Your task to perform on an android device: Open Chrome and go to the settings page Image 0: 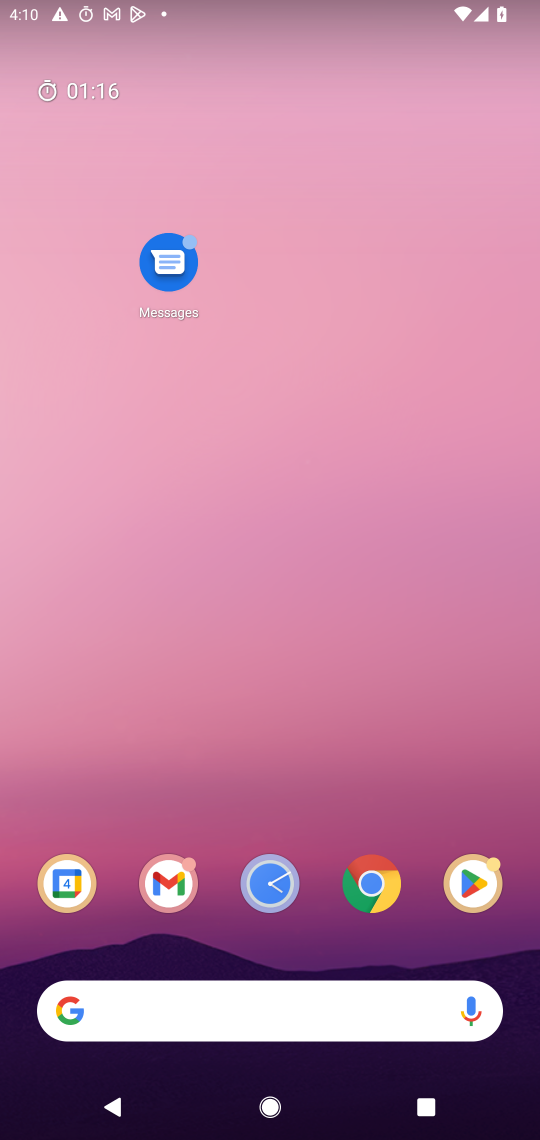
Step 0: drag from (317, 957) to (227, 97)
Your task to perform on an android device: Open Chrome and go to the settings page Image 1: 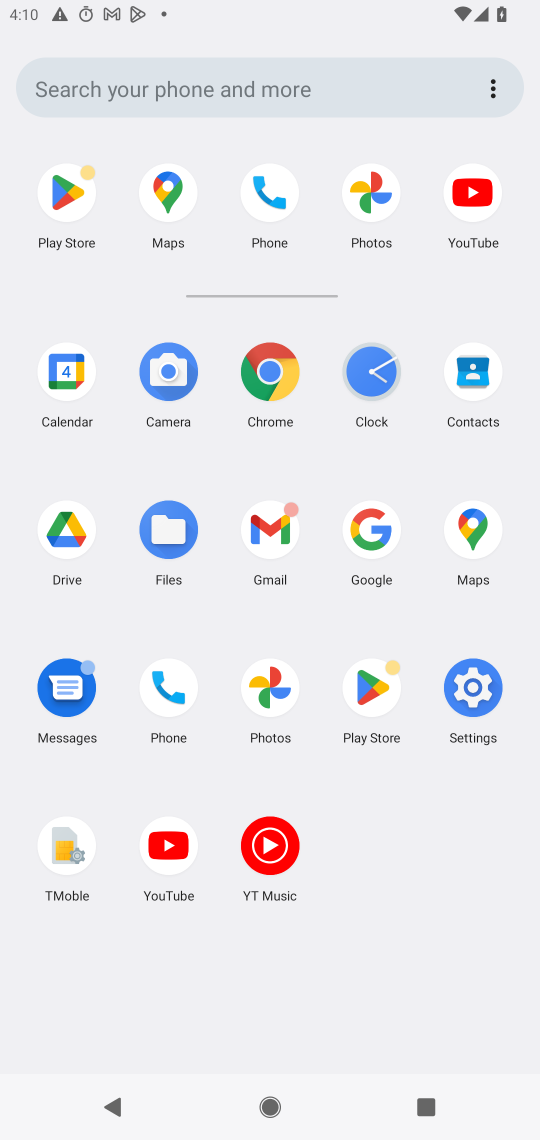
Step 1: click (273, 375)
Your task to perform on an android device: Open Chrome and go to the settings page Image 2: 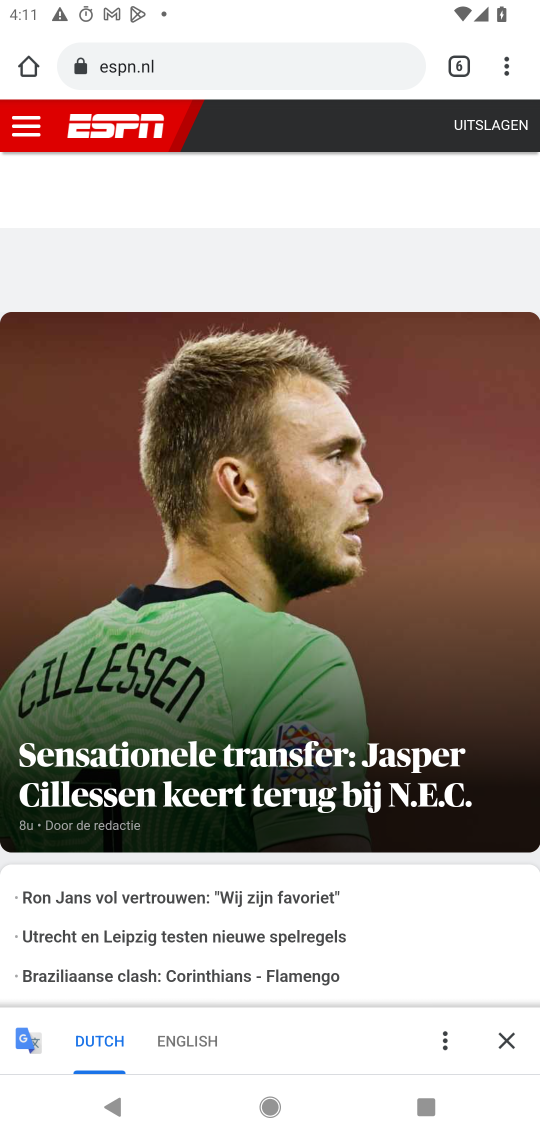
Step 2: click (508, 75)
Your task to perform on an android device: Open Chrome and go to the settings page Image 3: 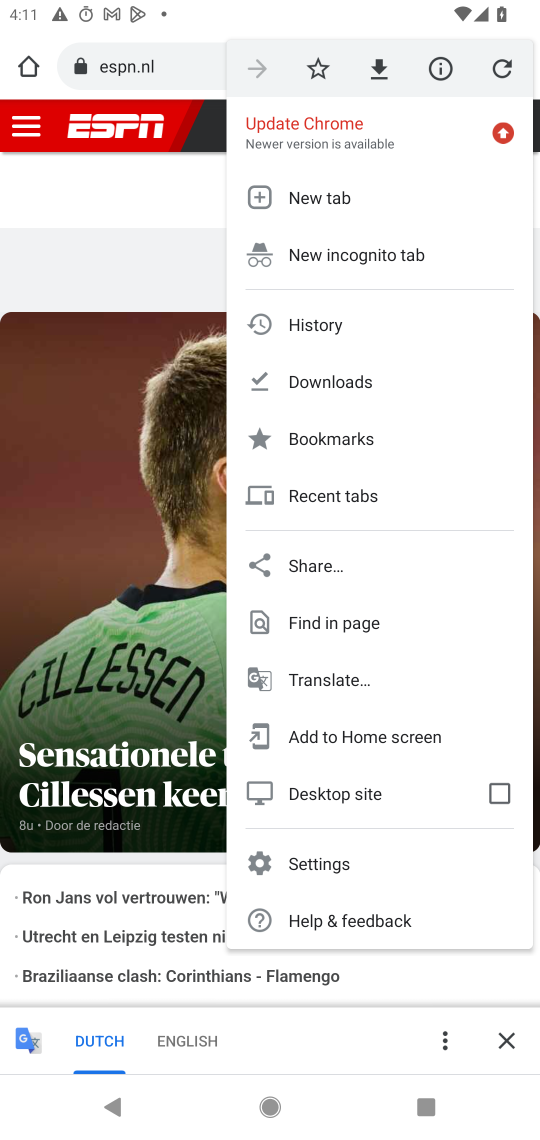
Step 3: click (315, 859)
Your task to perform on an android device: Open Chrome and go to the settings page Image 4: 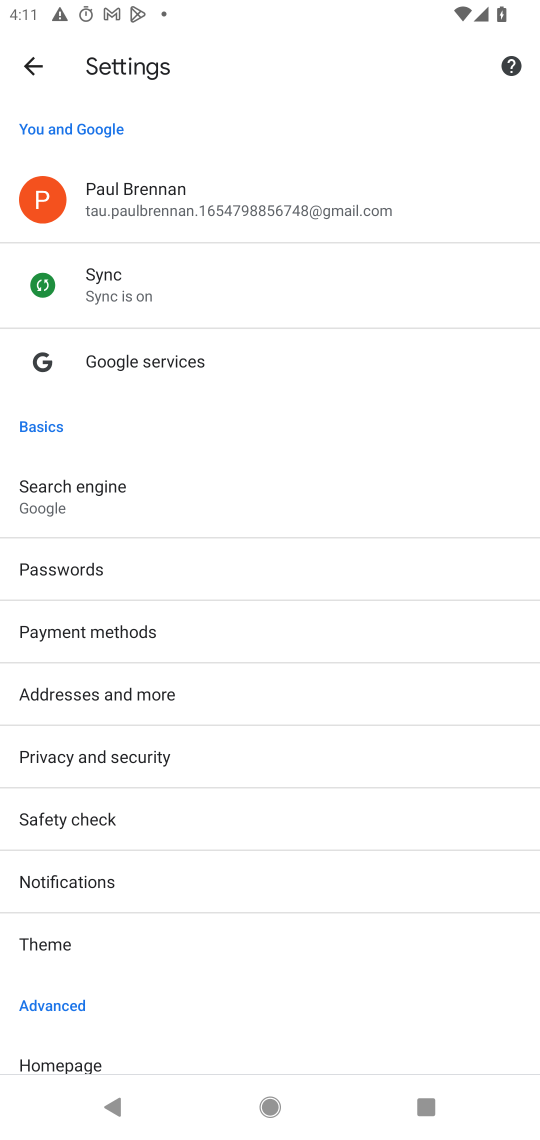
Step 4: task complete